Your task to perform on an android device: install app "Truecaller" Image 0: 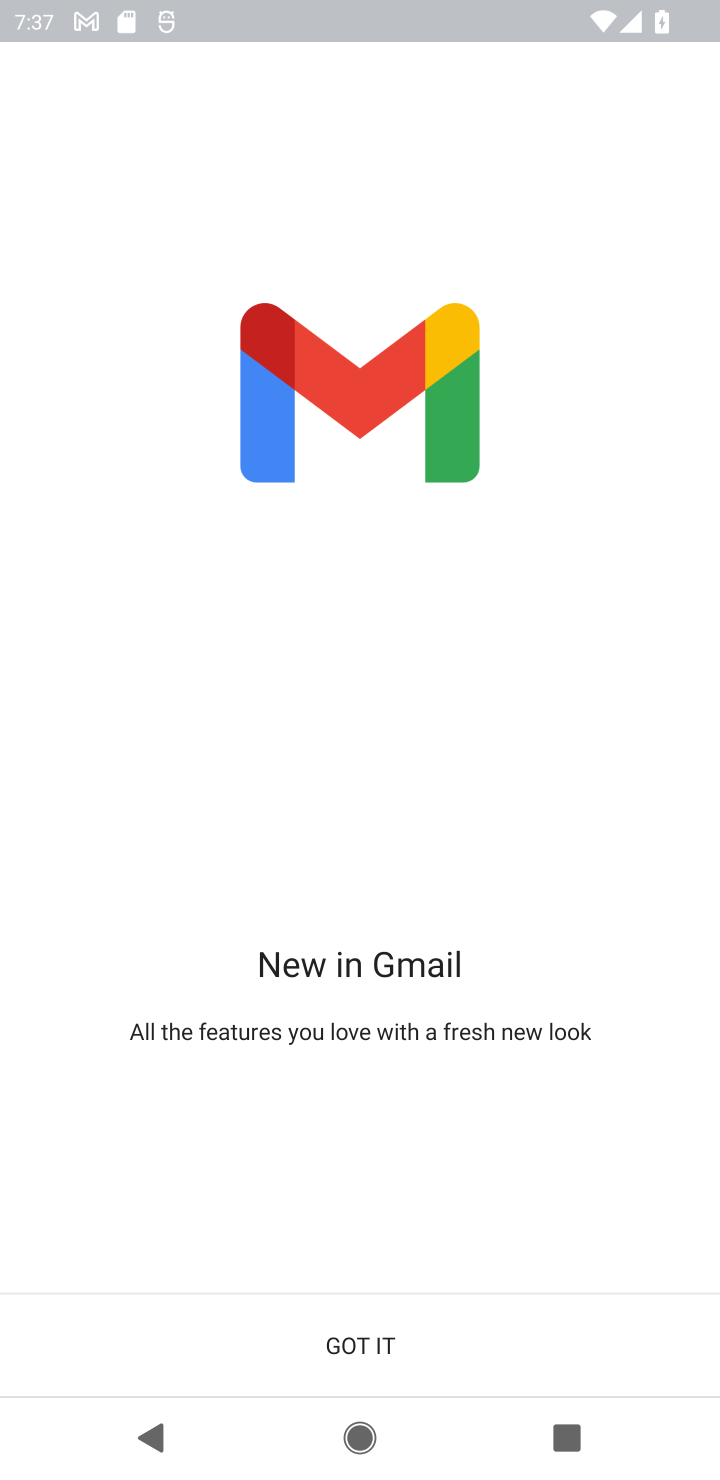
Step 0: press home button
Your task to perform on an android device: install app "Truecaller" Image 1: 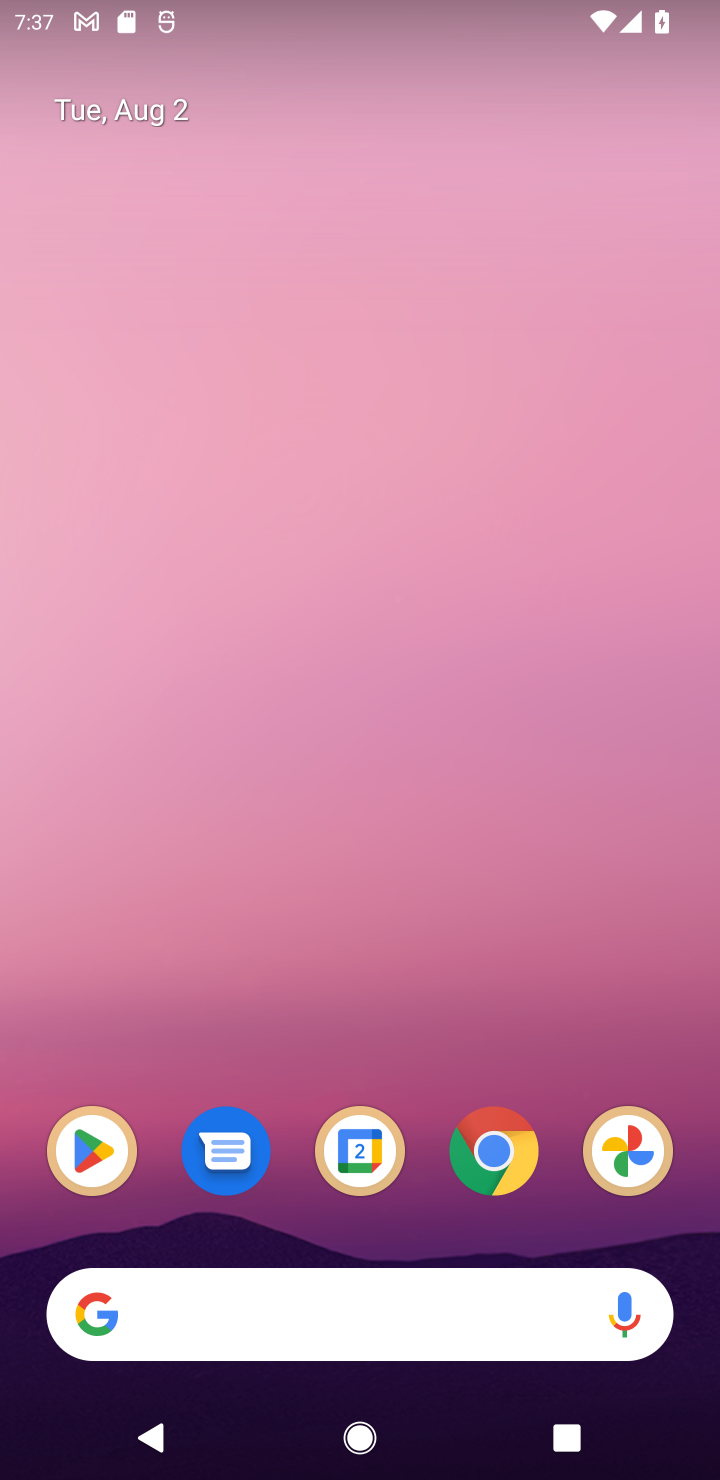
Step 1: drag from (340, 1238) to (387, 56)
Your task to perform on an android device: install app "Truecaller" Image 2: 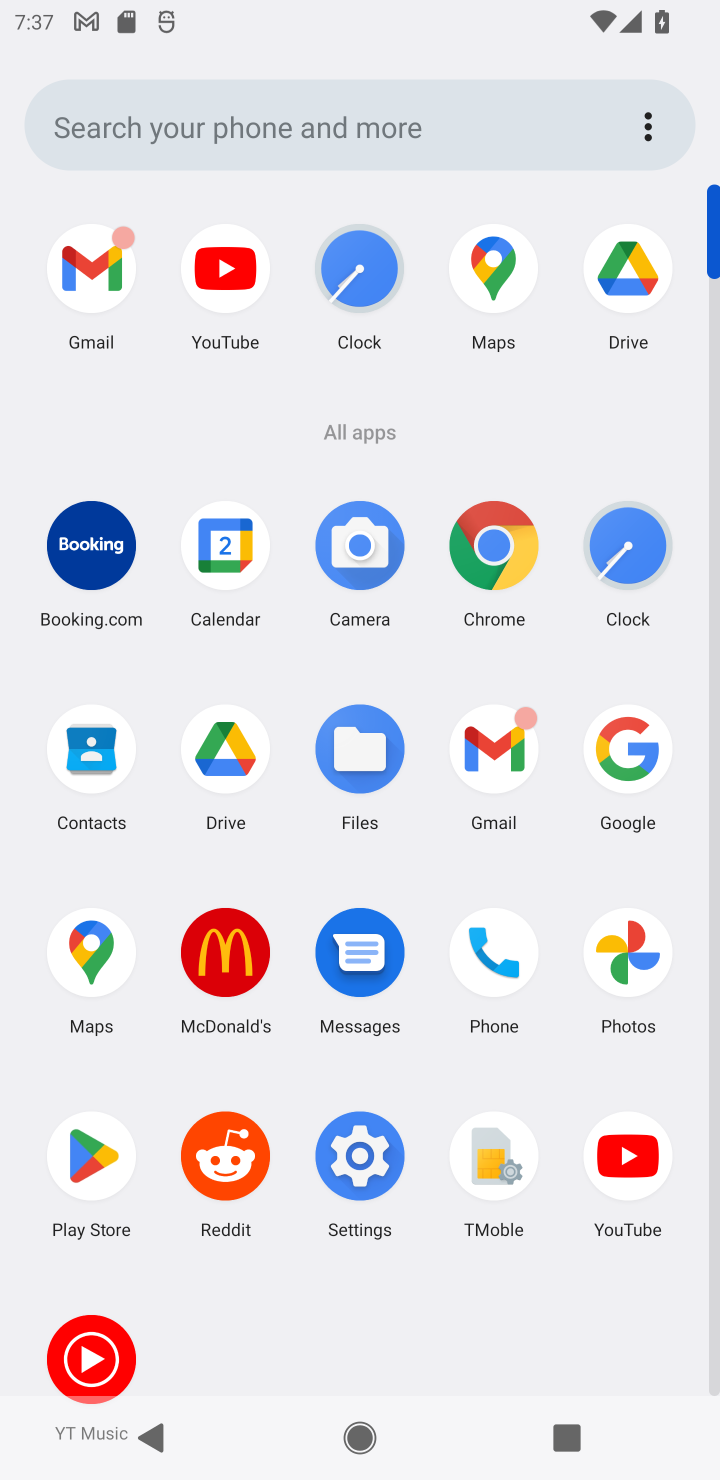
Step 2: click (83, 1126)
Your task to perform on an android device: install app "Truecaller" Image 3: 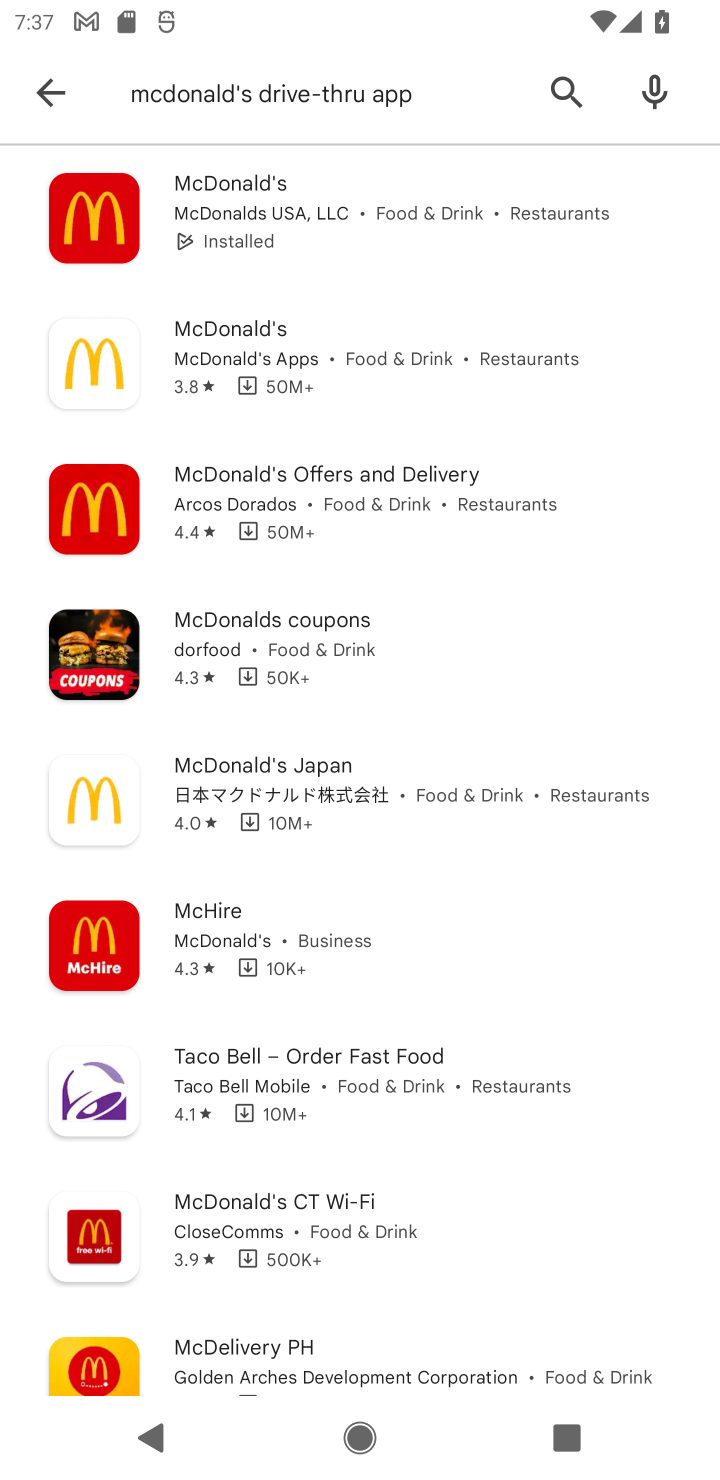
Step 3: click (21, 99)
Your task to perform on an android device: install app "Truecaller" Image 4: 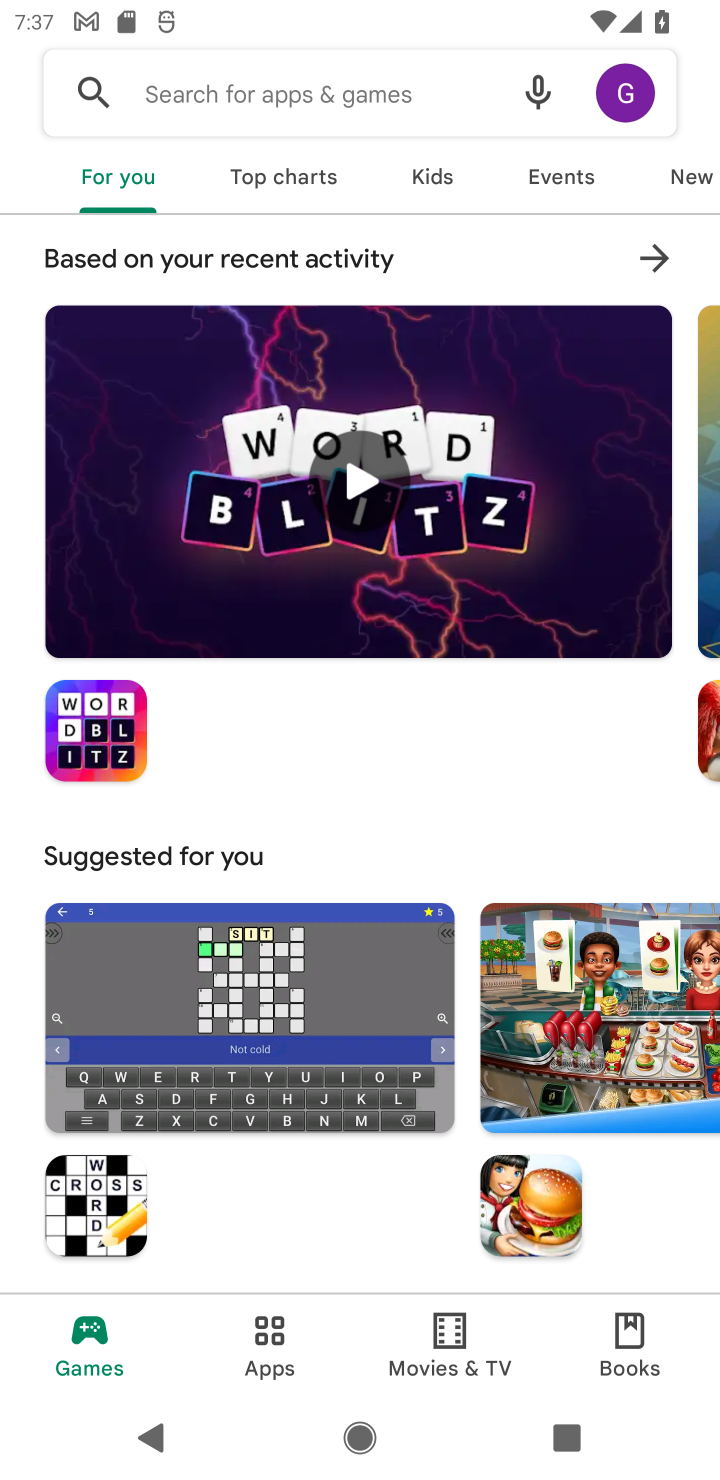
Step 4: click (207, 96)
Your task to perform on an android device: install app "Truecaller" Image 5: 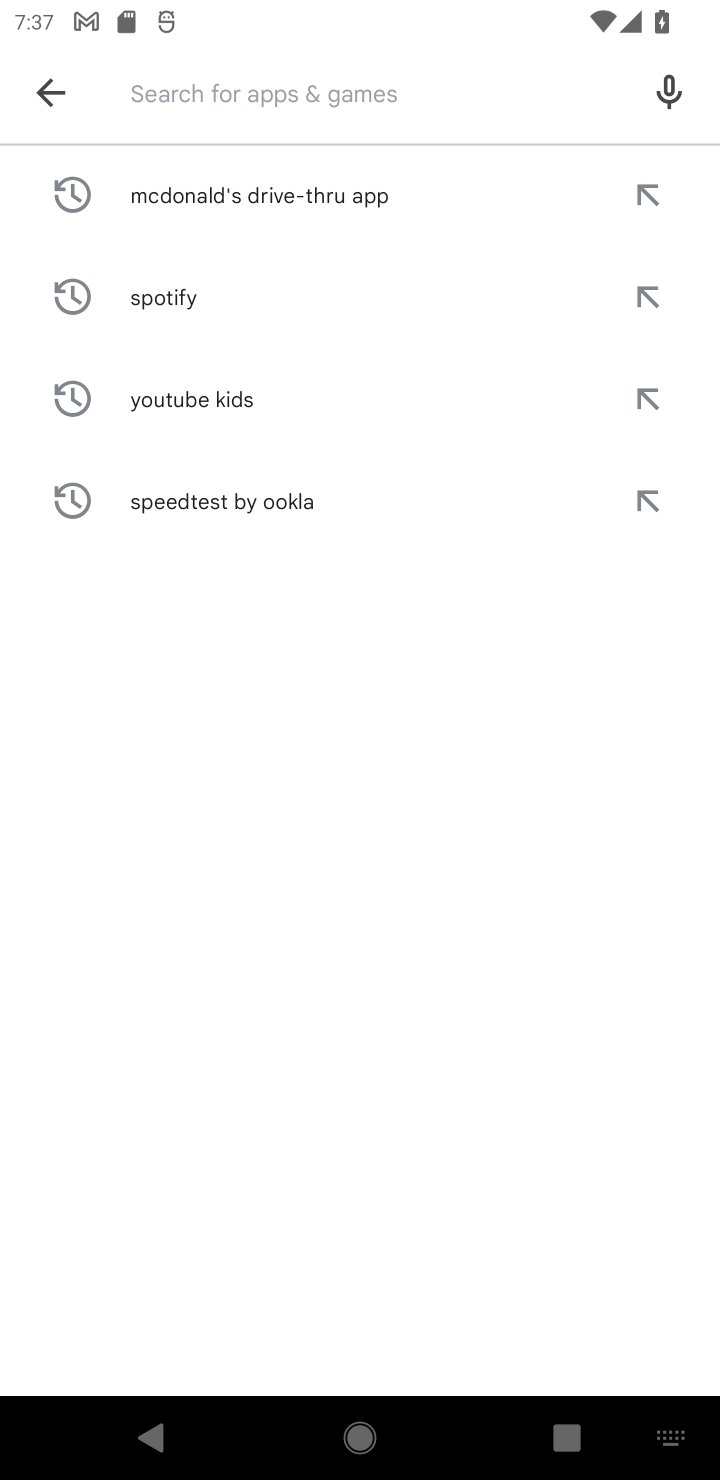
Step 5: type "Truecaller"
Your task to perform on an android device: install app "Truecaller" Image 6: 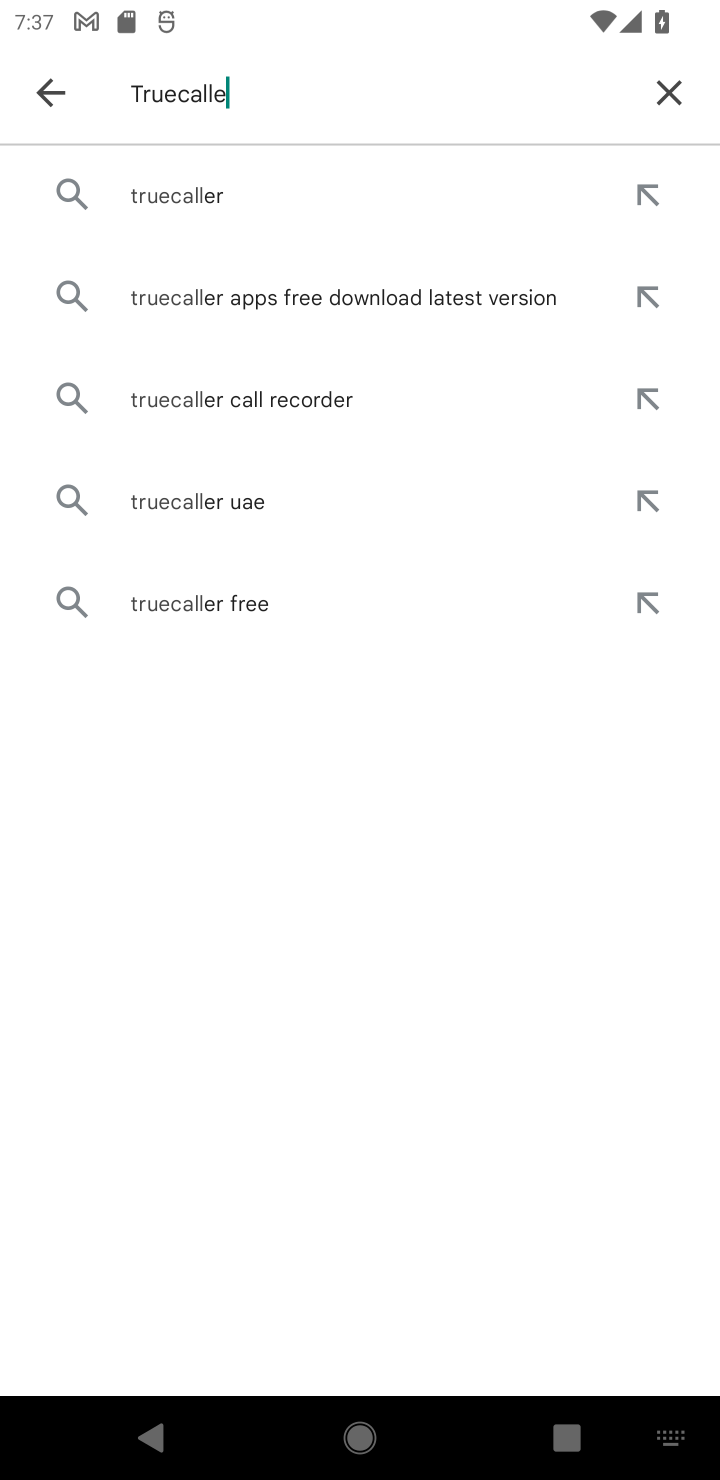
Step 6: type ""
Your task to perform on an android device: install app "Truecaller" Image 7: 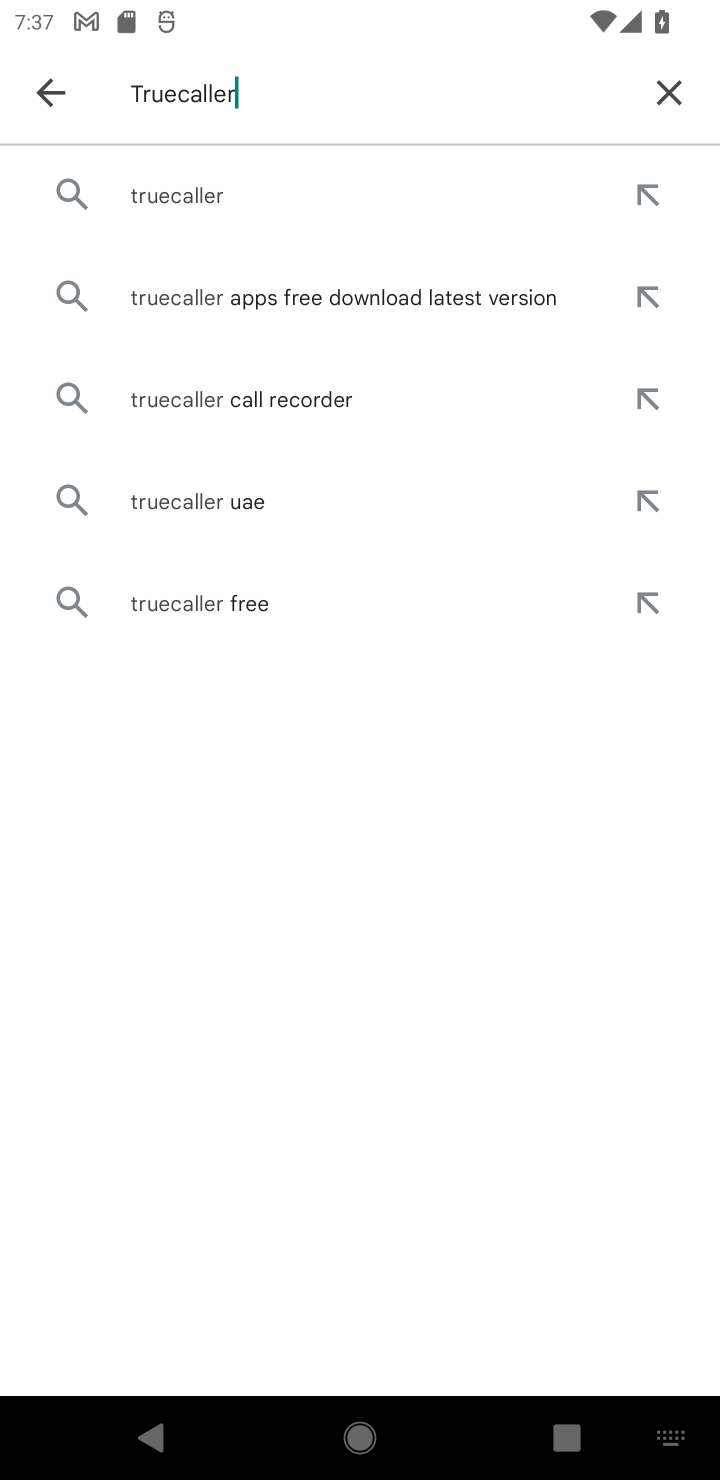
Step 7: click (102, 213)
Your task to perform on an android device: install app "Truecaller" Image 8: 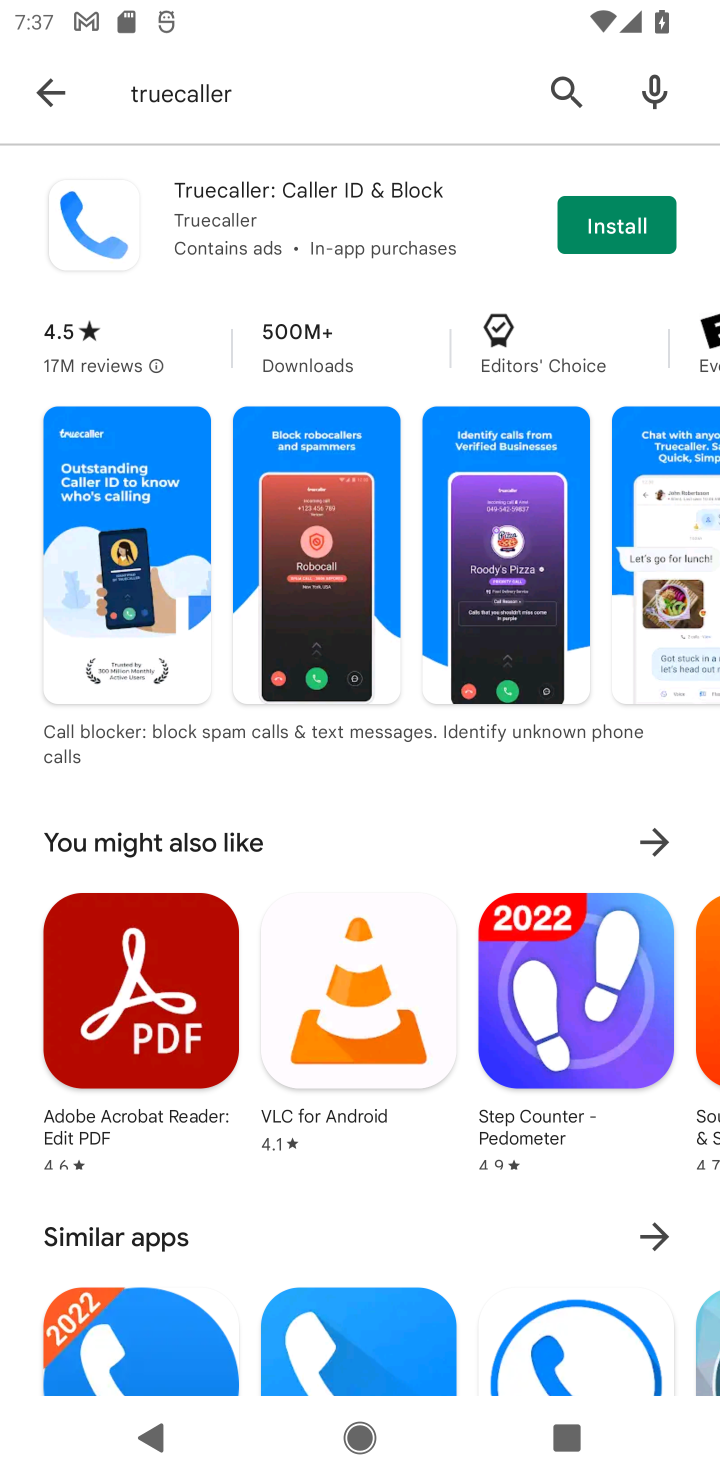
Step 8: click (628, 243)
Your task to perform on an android device: install app "Truecaller" Image 9: 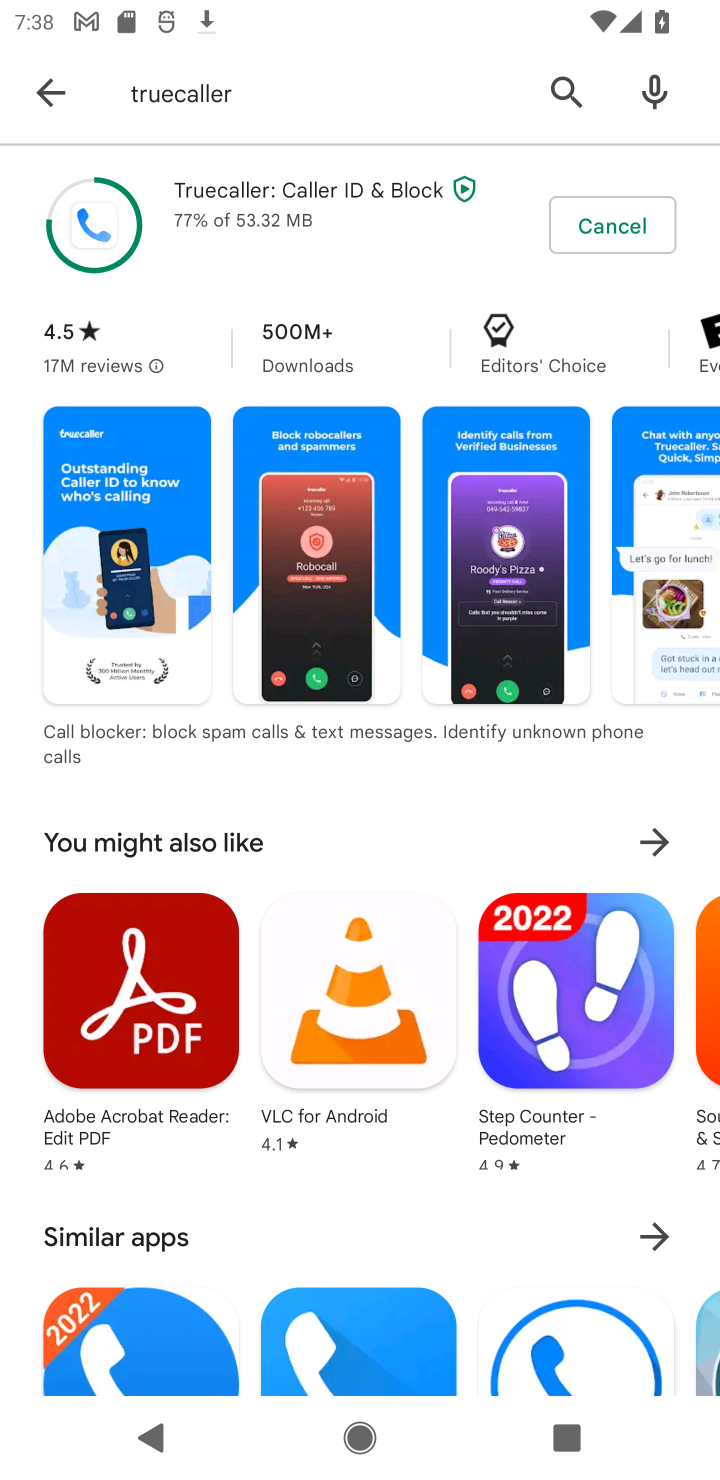
Step 9: task complete